Your task to perform on an android device: What's on my calendar tomorrow? Image 0: 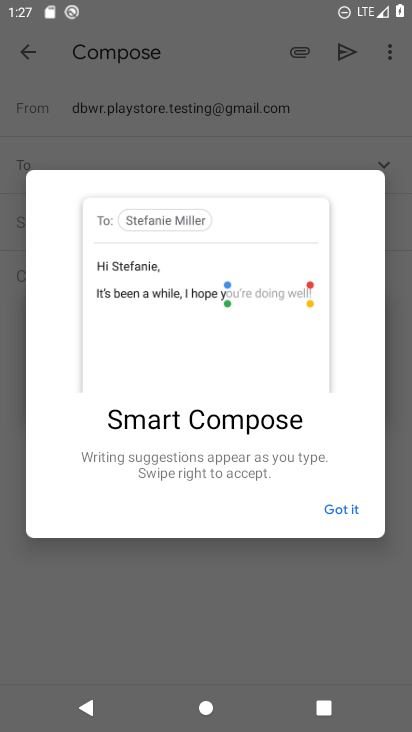
Step 0: press home button
Your task to perform on an android device: What's on my calendar tomorrow? Image 1: 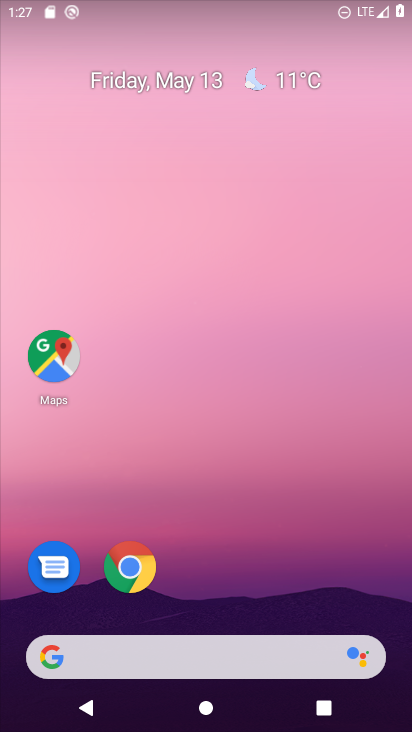
Step 1: drag from (220, 612) to (254, 9)
Your task to perform on an android device: What's on my calendar tomorrow? Image 2: 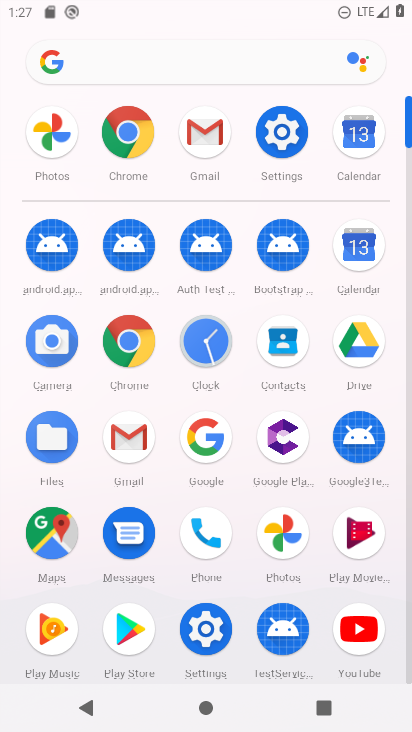
Step 2: click (361, 243)
Your task to perform on an android device: What's on my calendar tomorrow? Image 3: 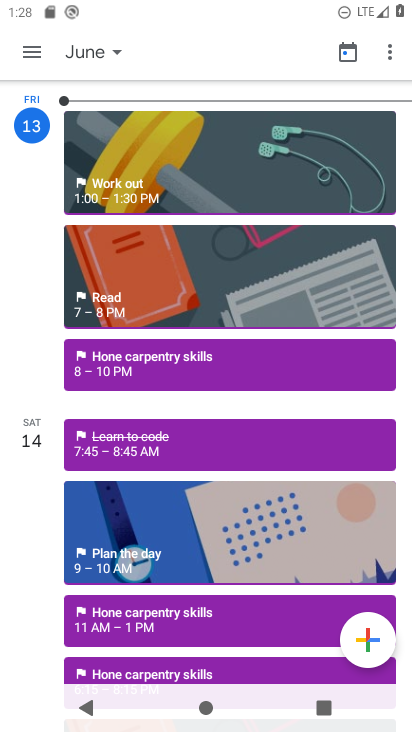
Step 3: click (28, 471)
Your task to perform on an android device: What's on my calendar tomorrow? Image 4: 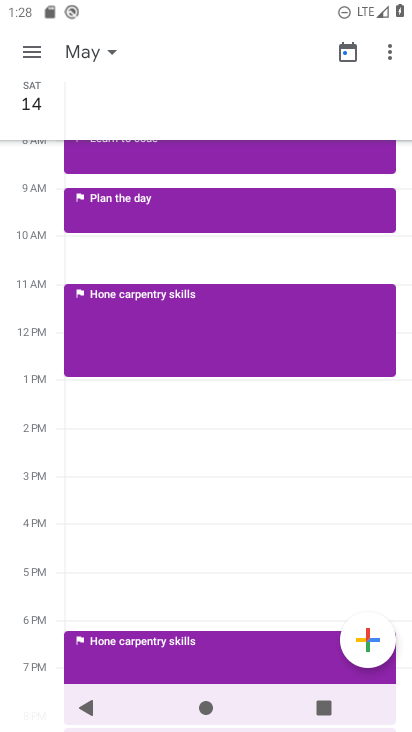
Step 4: drag from (27, 420) to (27, 204)
Your task to perform on an android device: What's on my calendar tomorrow? Image 5: 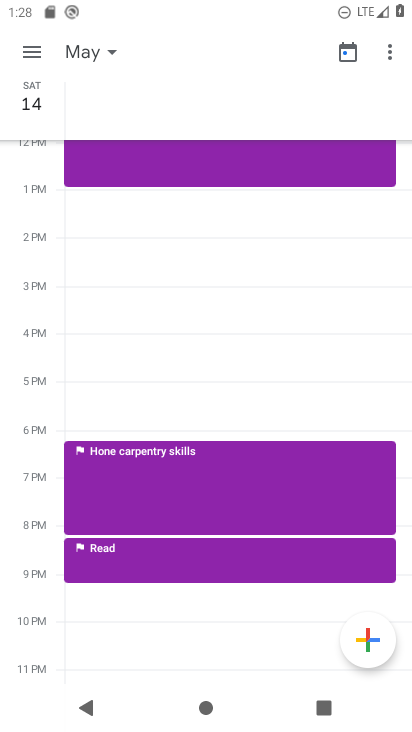
Step 5: click (27, 171)
Your task to perform on an android device: What's on my calendar tomorrow? Image 6: 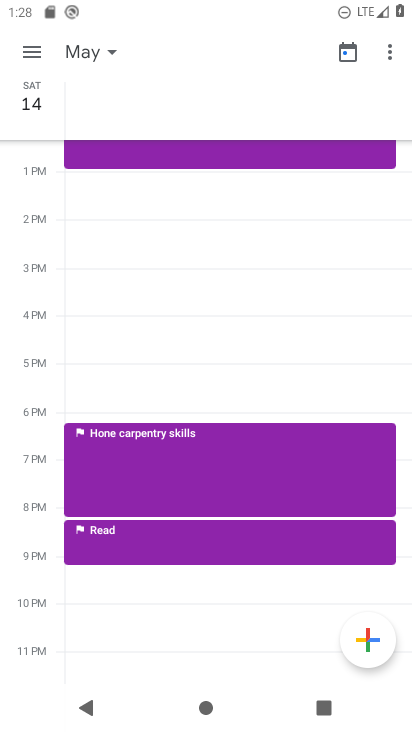
Step 6: task complete